Your task to perform on an android device: Search for Italian restaurants on Maps Image 0: 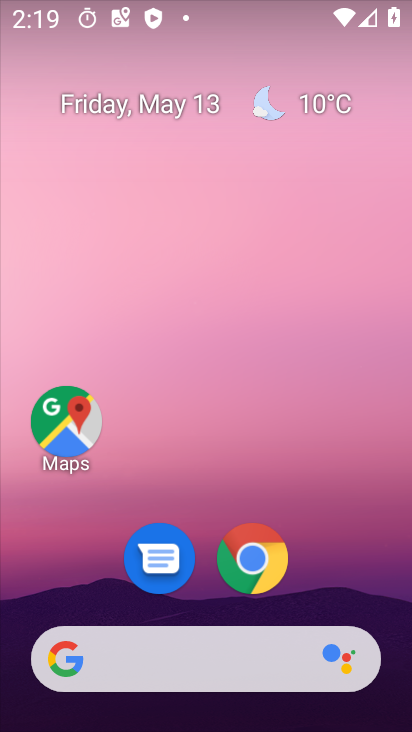
Step 0: click (84, 420)
Your task to perform on an android device: Search for Italian restaurants on Maps Image 1: 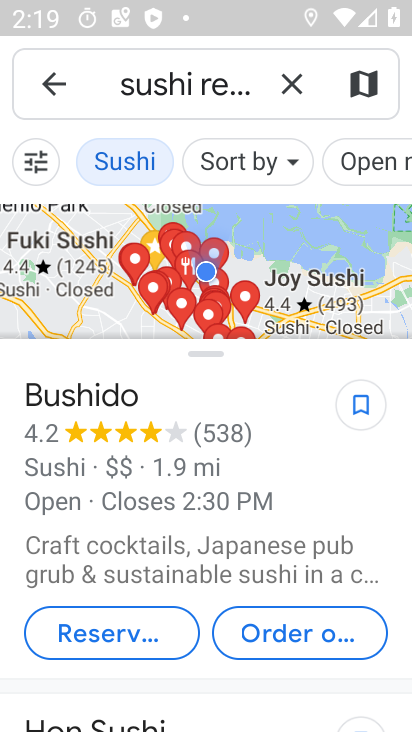
Step 1: click (283, 84)
Your task to perform on an android device: Search for Italian restaurants on Maps Image 2: 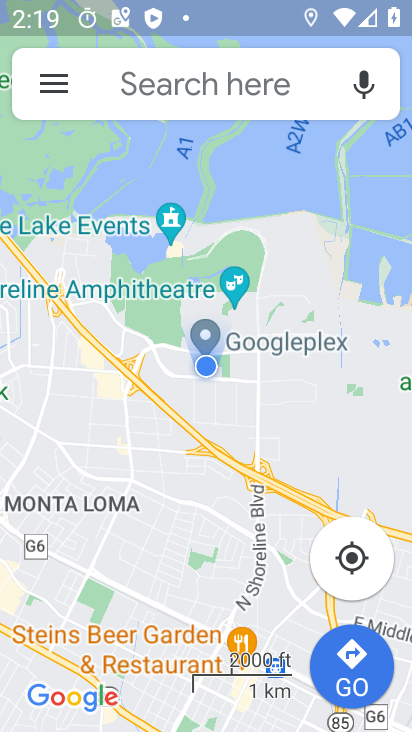
Step 2: click (183, 86)
Your task to perform on an android device: Search for Italian restaurants on Maps Image 3: 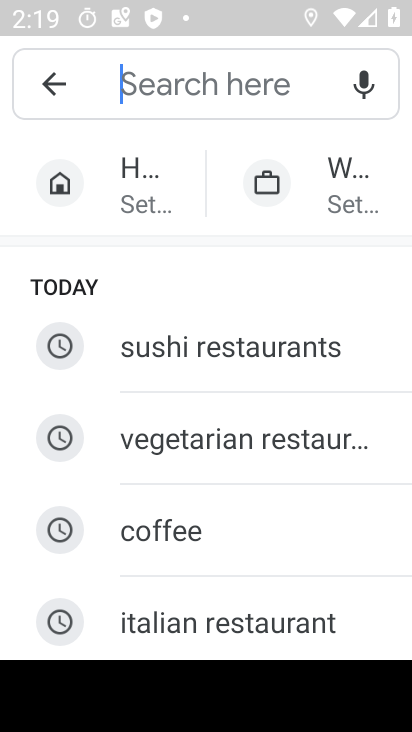
Step 3: click (197, 626)
Your task to perform on an android device: Search for Italian restaurants on Maps Image 4: 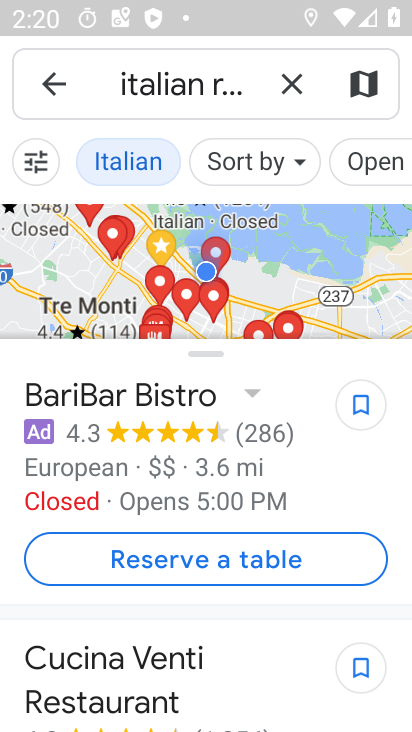
Step 4: task complete